Your task to perform on an android device: Go to privacy settings Image 0: 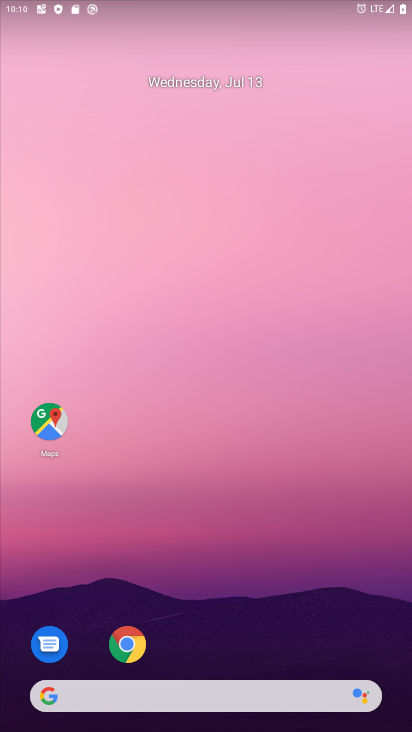
Step 0: drag from (195, 731) to (205, 77)
Your task to perform on an android device: Go to privacy settings Image 1: 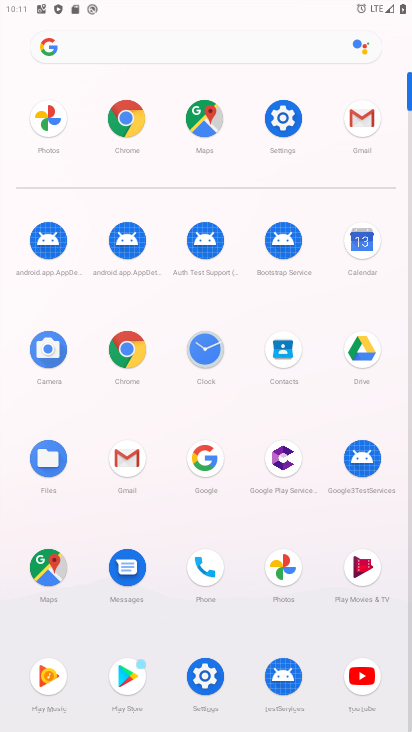
Step 1: click (285, 112)
Your task to perform on an android device: Go to privacy settings Image 2: 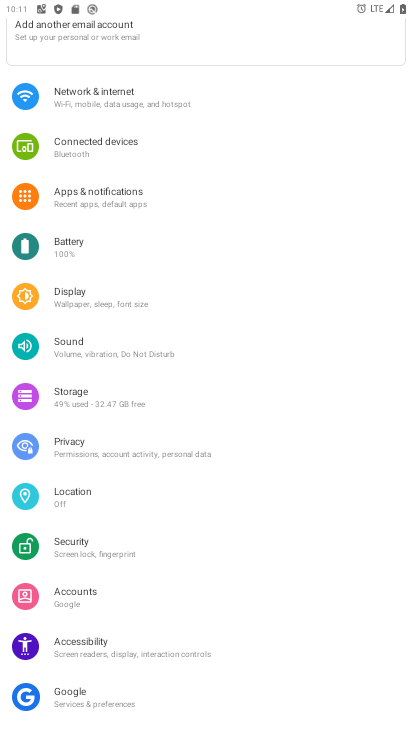
Step 2: click (81, 446)
Your task to perform on an android device: Go to privacy settings Image 3: 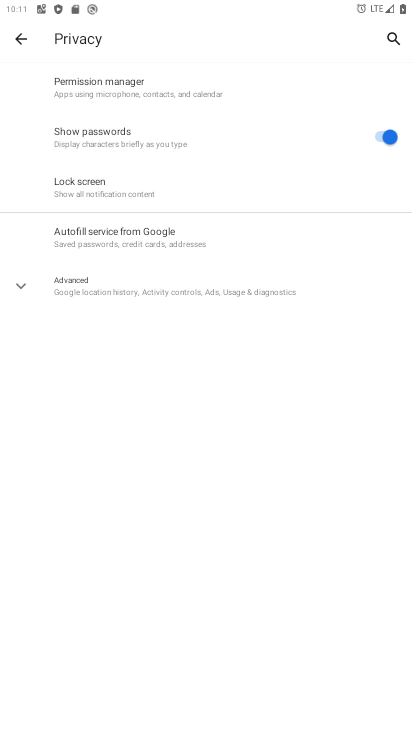
Step 3: task complete